Your task to perform on an android device: Open my contact list Image 0: 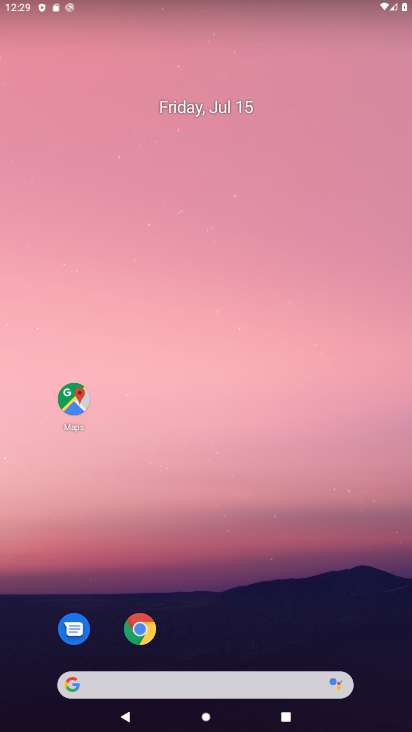
Step 0: drag from (263, 573) to (240, 30)
Your task to perform on an android device: Open my contact list Image 1: 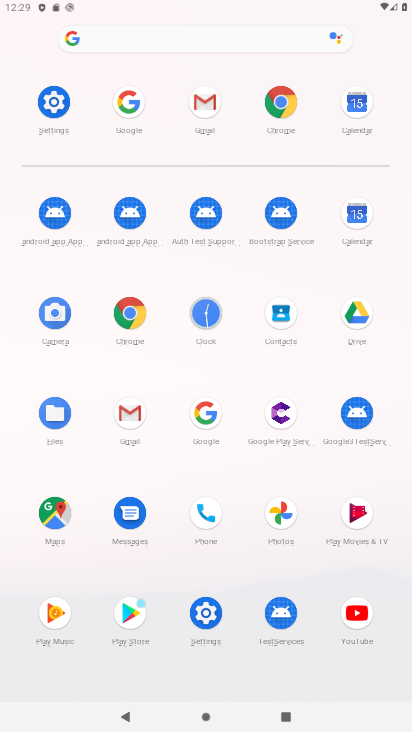
Step 1: click (287, 318)
Your task to perform on an android device: Open my contact list Image 2: 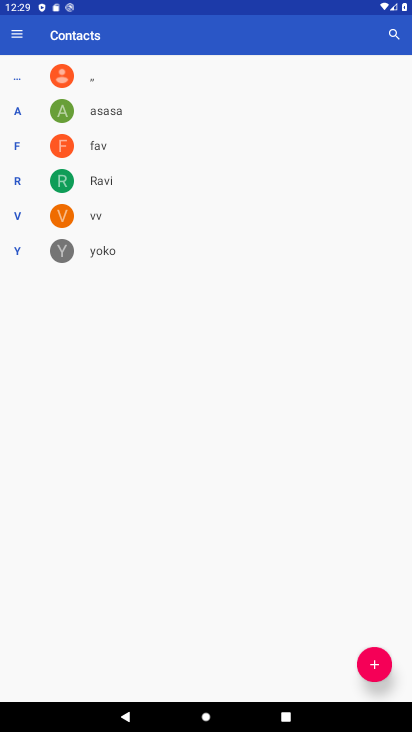
Step 2: task complete